Your task to perform on an android device: open app "PlayWell" (install if not already installed), go to login, and select forgot password Image 0: 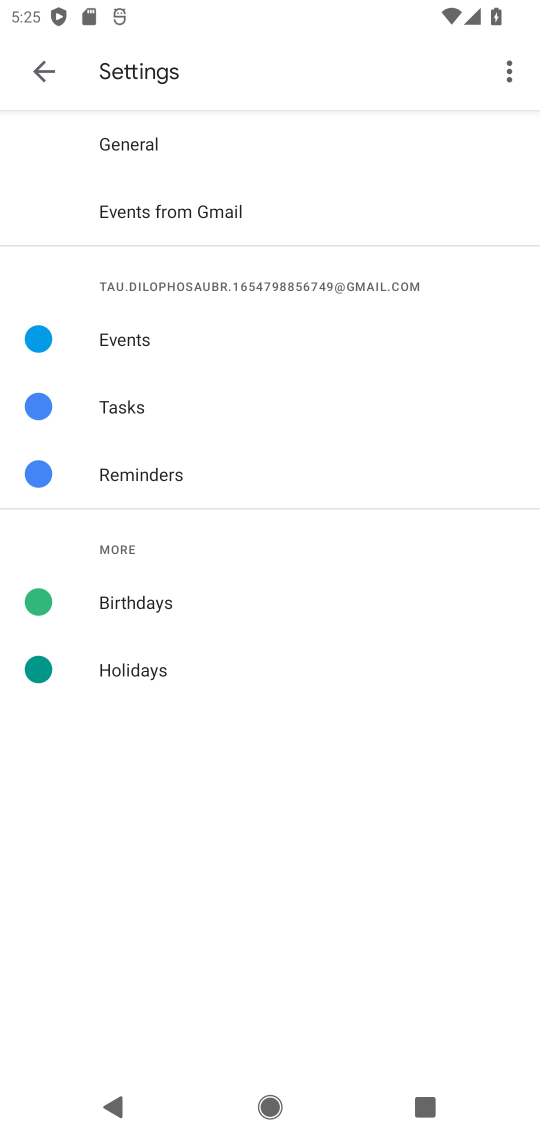
Step 0: press back button
Your task to perform on an android device: open app "PlayWell" (install if not already installed), go to login, and select forgot password Image 1: 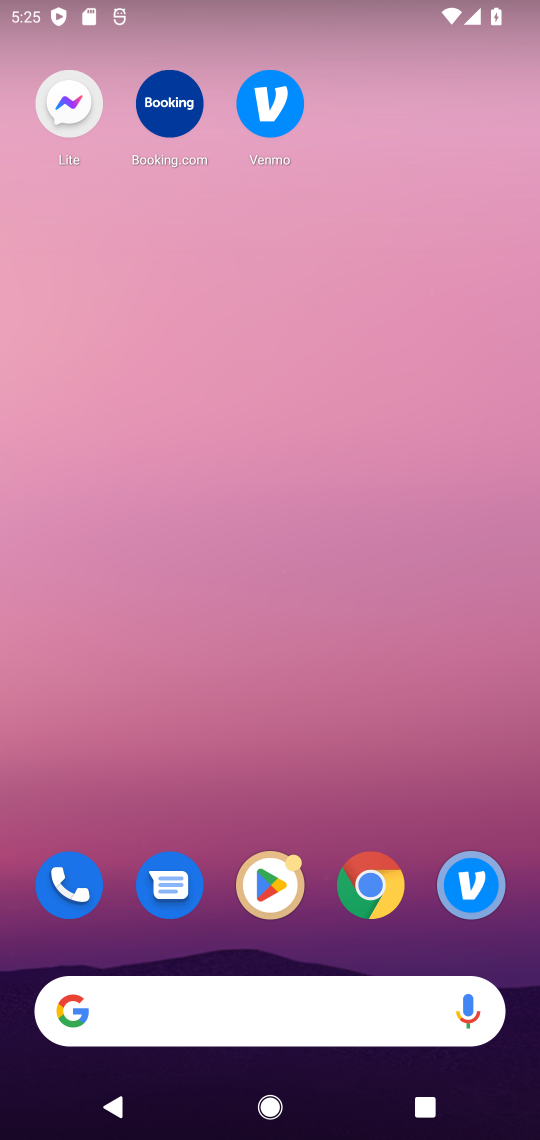
Step 1: click (264, 897)
Your task to perform on an android device: open app "PlayWell" (install if not already installed), go to login, and select forgot password Image 2: 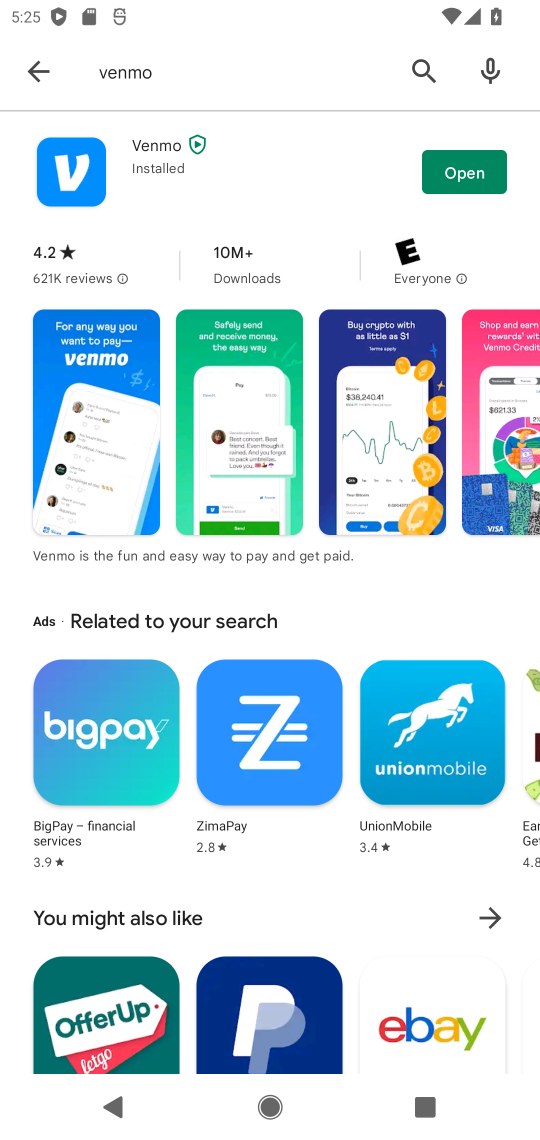
Step 2: click (428, 76)
Your task to perform on an android device: open app "PlayWell" (install if not already installed), go to login, and select forgot password Image 3: 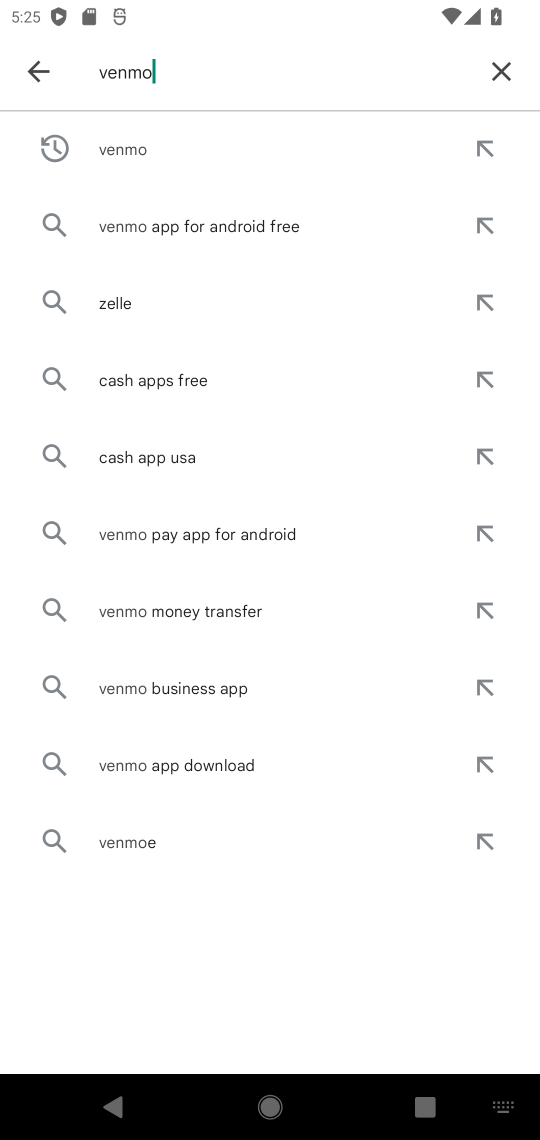
Step 3: click (494, 71)
Your task to perform on an android device: open app "PlayWell" (install if not already installed), go to login, and select forgot password Image 4: 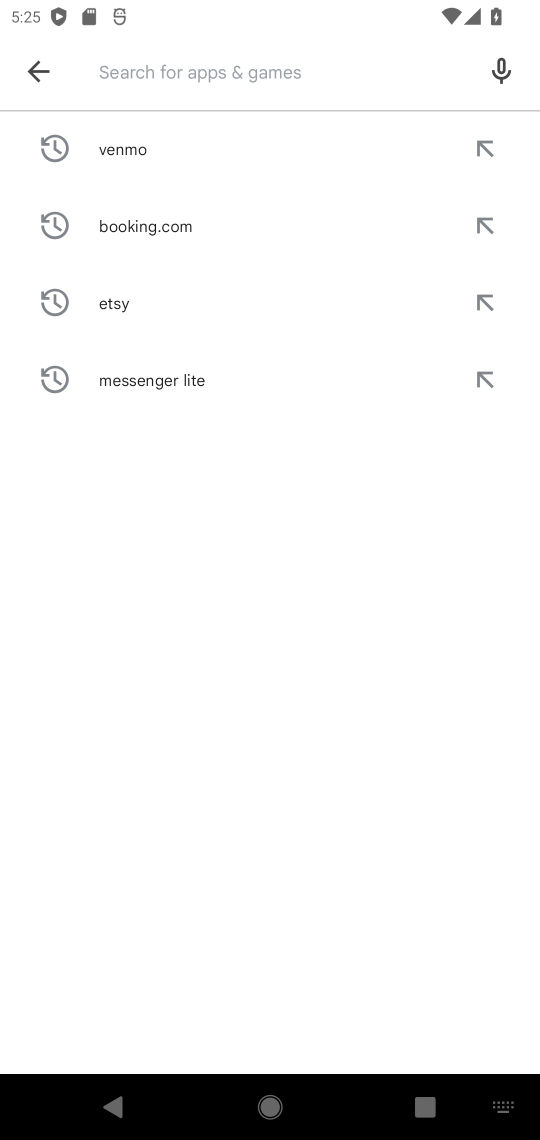
Step 4: click (164, 85)
Your task to perform on an android device: open app "PlayWell" (install if not already installed), go to login, and select forgot password Image 5: 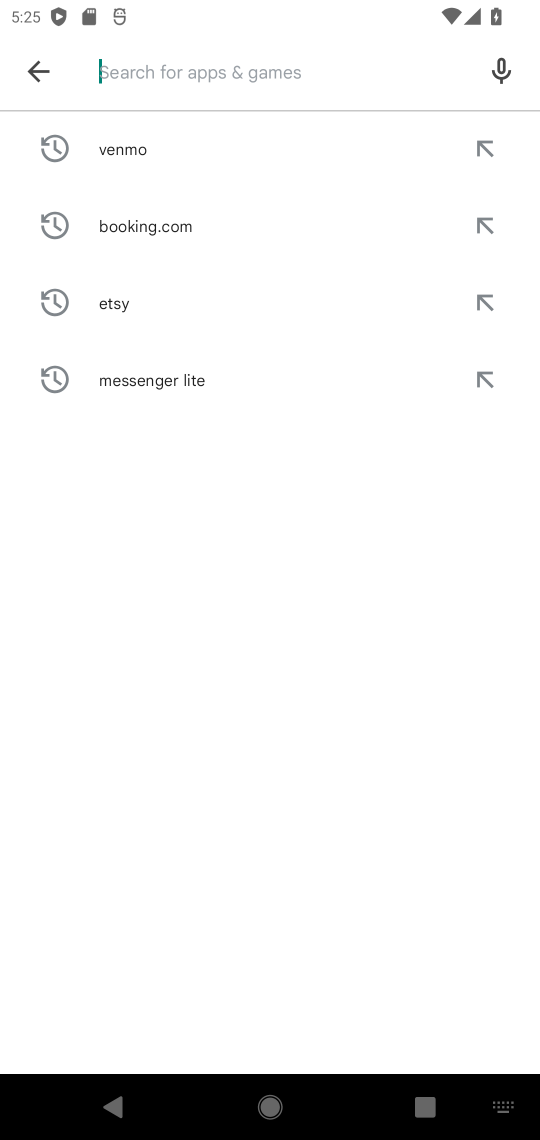
Step 5: type "playwell"
Your task to perform on an android device: open app "PlayWell" (install if not already installed), go to login, and select forgot password Image 6: 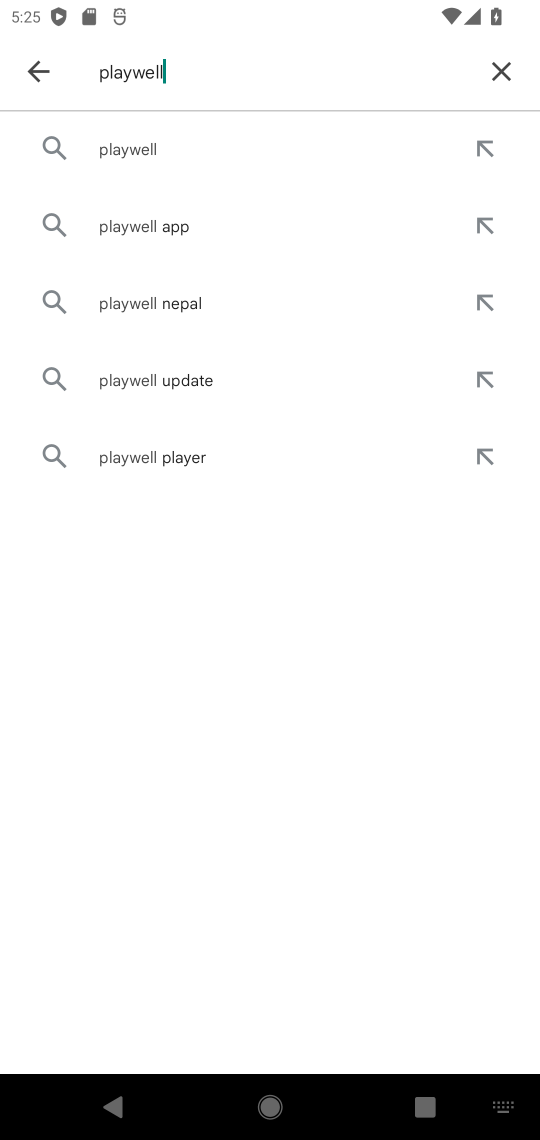
Step 6: click (140, 148)
Your task to perform on an android device: open app "PlayWell" (install if not already installed), go to login, and select forgot password Image 7: 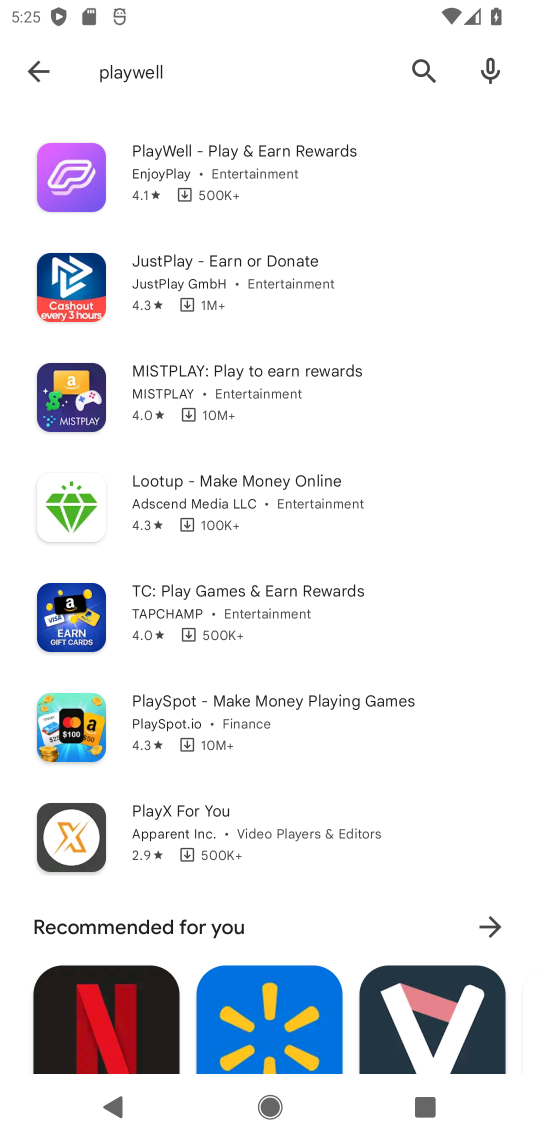
Step 7: click (262, 161)
Your task to perform on an android device: open app "PlayWell" (install if not already installed), go to login, and select forgot password Image 8: 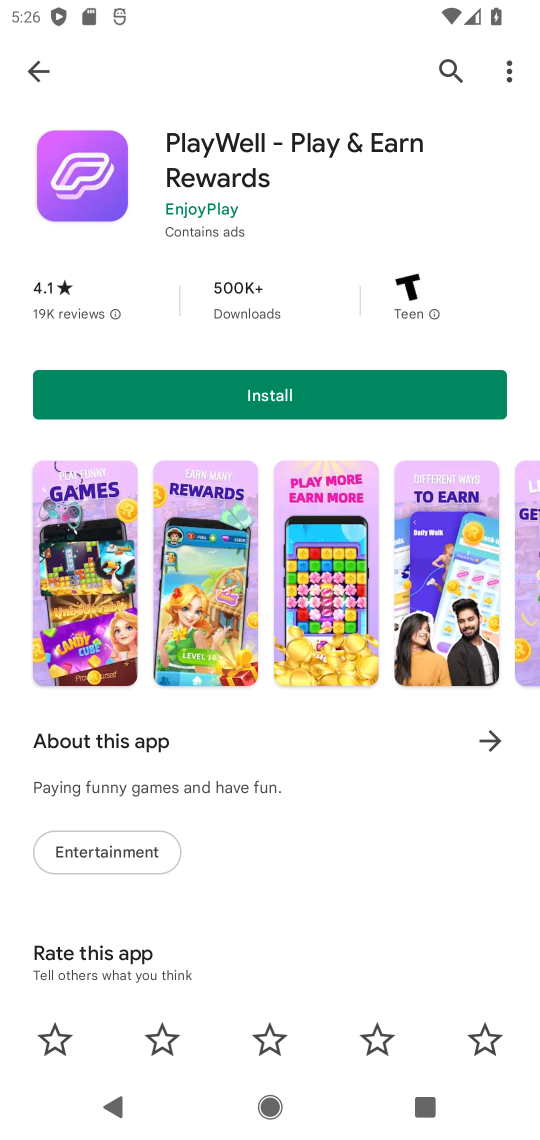
Step 8: click (285, 398)
Your task to perform on an android device: open app "PlayWell" (install if not already installed), go to login, and select forgot password Image 9: 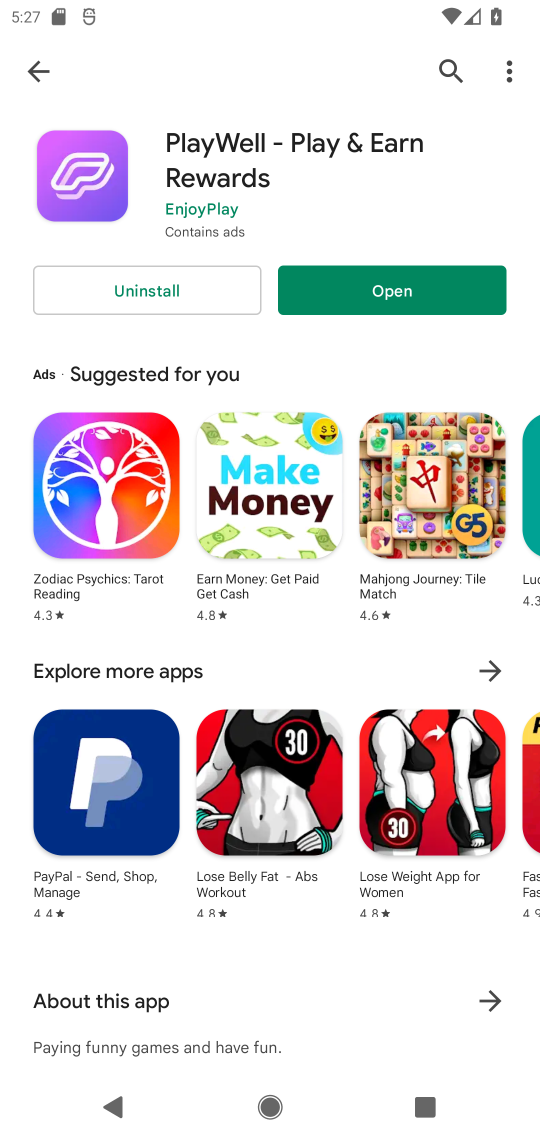
Step 9: click (373, 316)
Your task to perform on an android device: open app "PlayWell" (install if not already installed), go to login, and select forgot password Image 10: 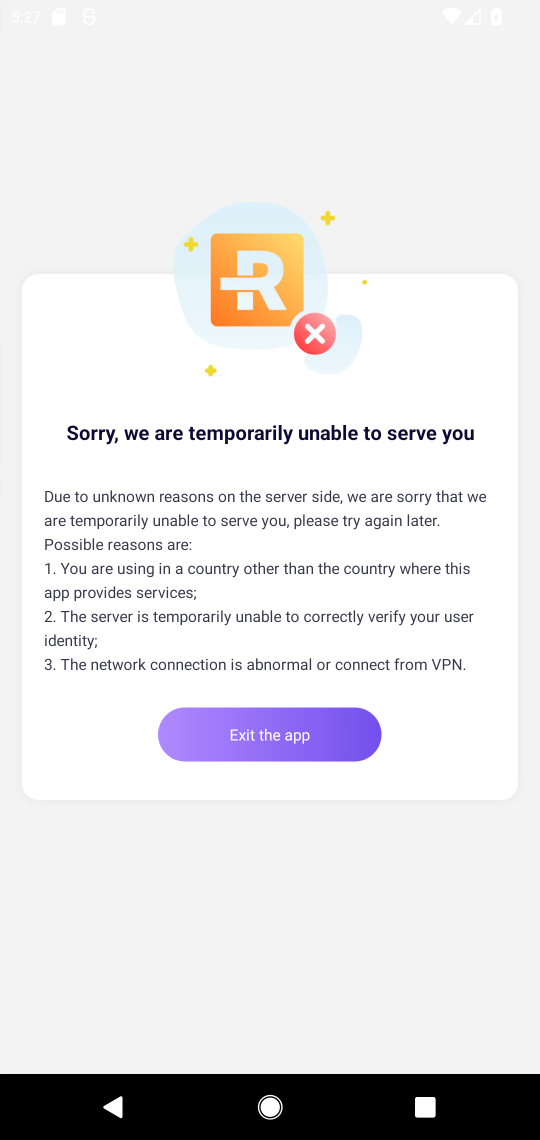
Step 10: click (295, 718)
Your task to perform on an android device: open app "PlayWell" (install if not already installed), go to login, and select forgot password Image 11: 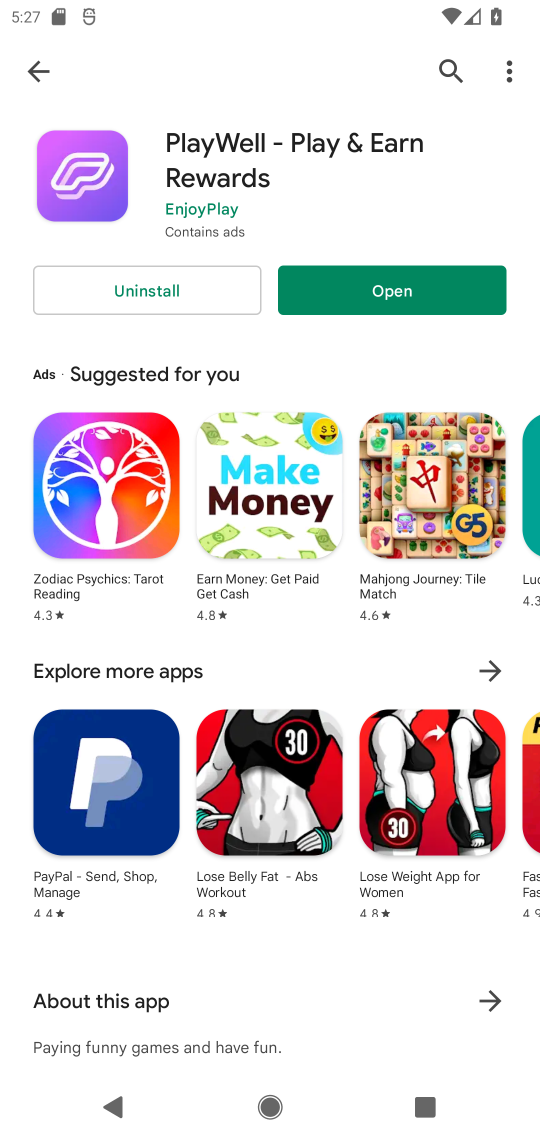
Step 11: task complete